Your task to perform on an android device: turn on the 24-hour format for clock Image 0: 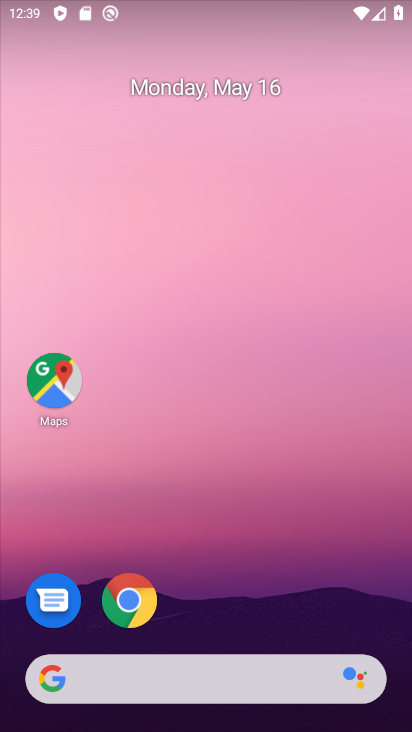
Step 0: drag from (346, 608) to (358, 149)
Your task to perform on an android device: turn on the 24-hour format for clock Image 1: 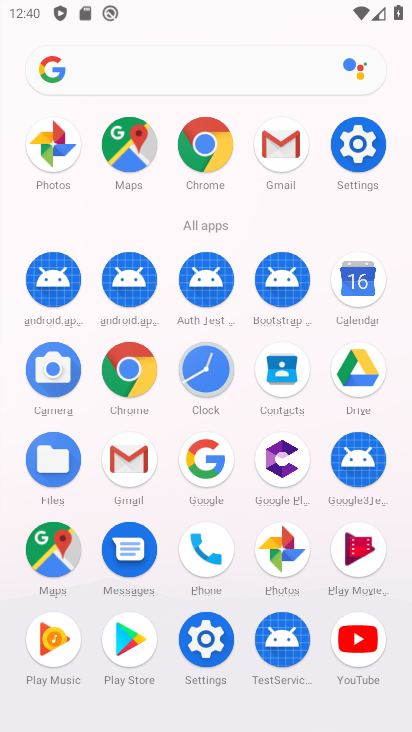
Step 1: click (217, 371)
Your task to perform on an android device: turn on the 24-hour format for clock Image 2: 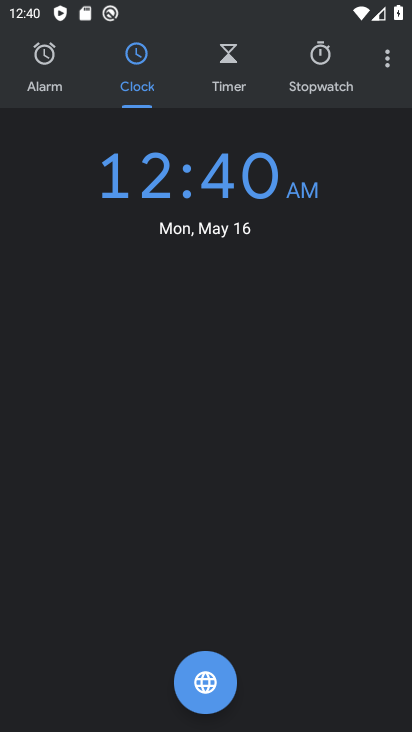
Step 2: click (384, 66)
Your task to perform on an android device: turn on the 24-hour format for clock Image 3: 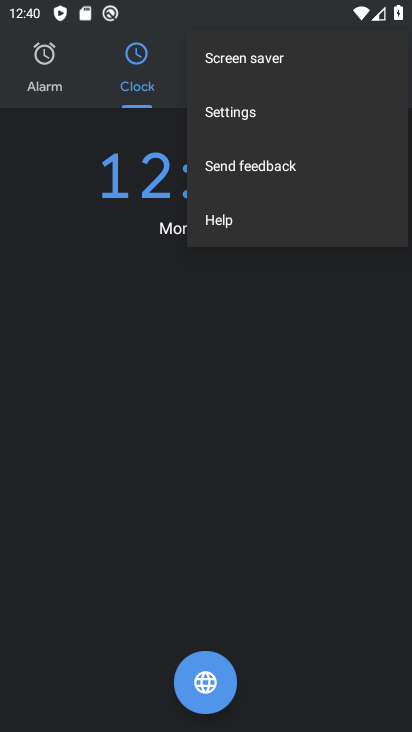
Step 3: click (241, 122)
Your task to perform on an android device: turn on the 24-hour format for clock Image 4: 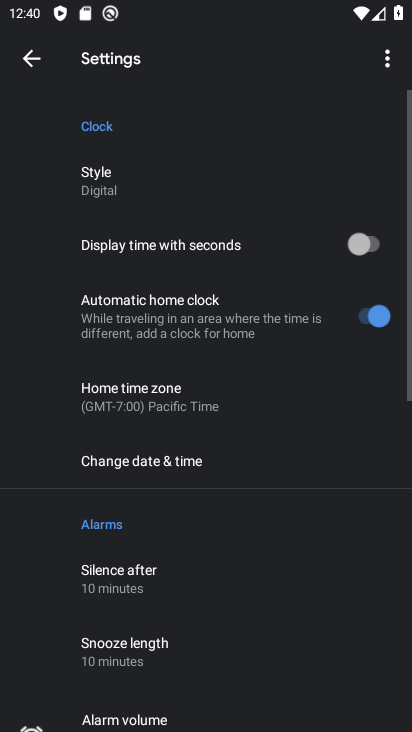
Step 4: drag from (306, 614) to (309, 484)
Your task to perform on an android device: turn on the 24-hour format for clock Image 5: 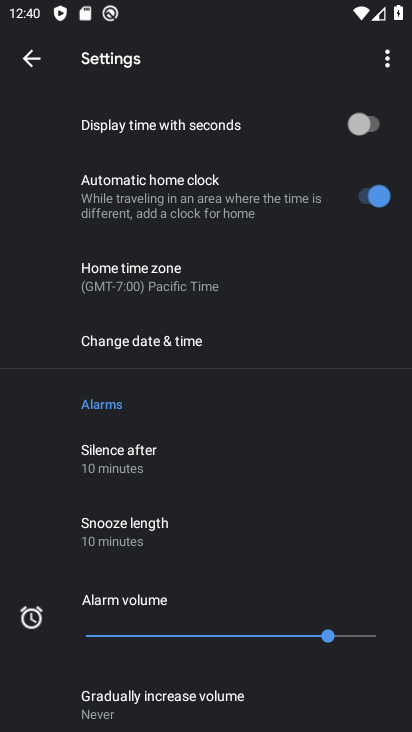
Step 5: drag from (312, 681) to (319, 530)
Your task to perform on an android device: turn on the 24-hour format for clock Image 6: 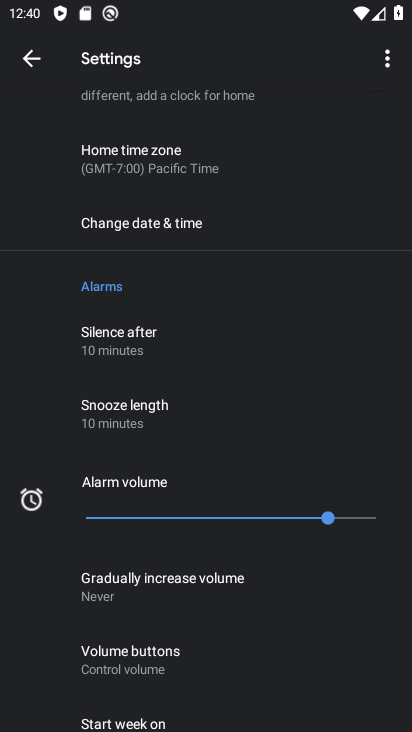
Step 6: drag from (302, 661) to (302, 530)
Your task to perform on an android device: turn on the 24-hour format for clock Image 7: 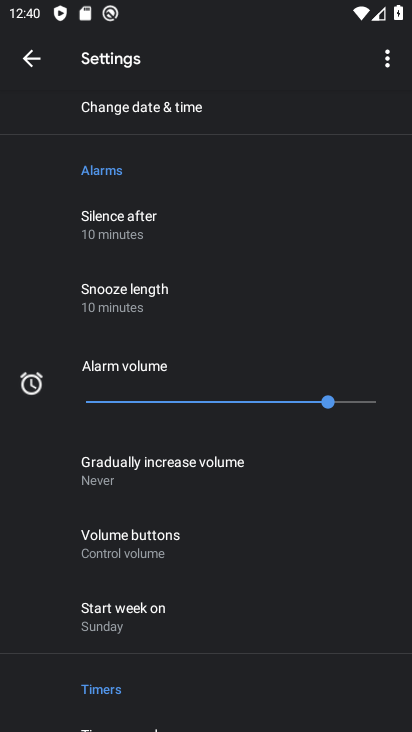
Step 7: drag from (285, 660) to (292, 531)
Your task to perform on an android device: turn on the 24-hour format for clock Image 8: 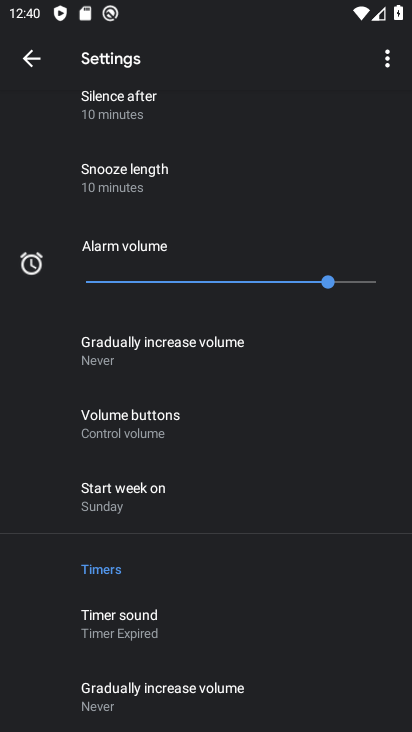
Step 8: drag from (287, 668) to (300, 516)
Your task to perform on an android device: turn on the 24-hour format for clock Image 9: 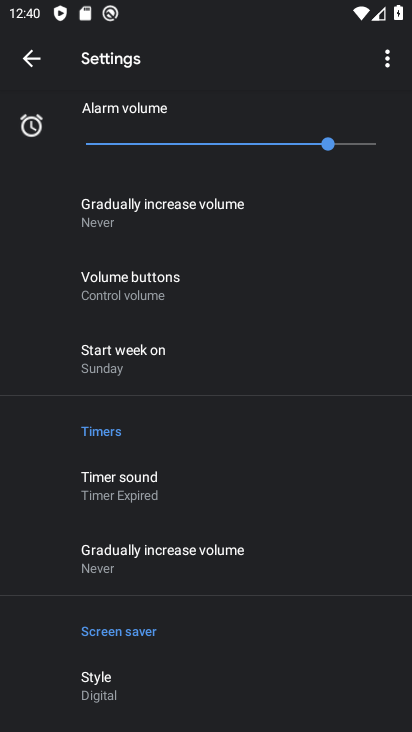
Step 9: drag from (329, 312) to (321, 492)
Your task to perform on an android device: turn on the 24-hour format for clock Image 10: 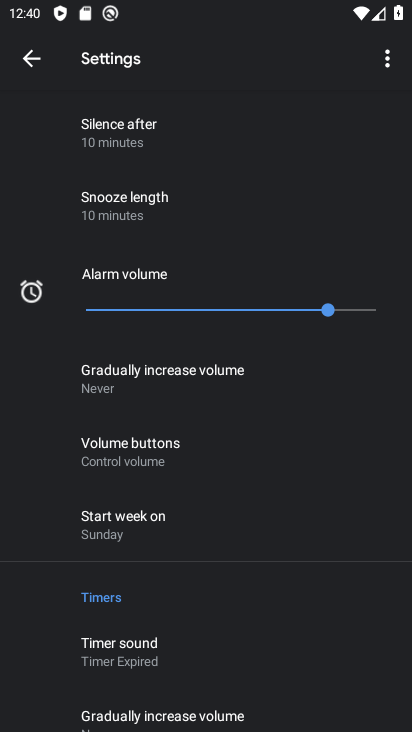
Step 10: drag from (295, 268) to (279, 458)
Your task to perform on an android device: turn on the 24-hour format for clock Image 11: 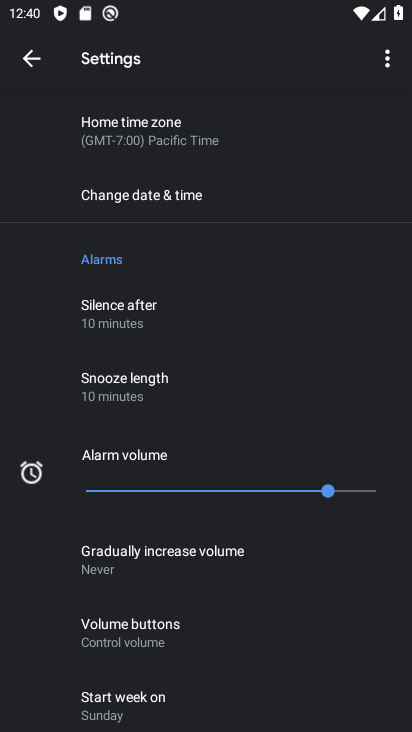
Step 11: drag from (280, 190) to (277, 489)
Your task to perform on an android device: turn on the 24-hour format for clock Image 12: 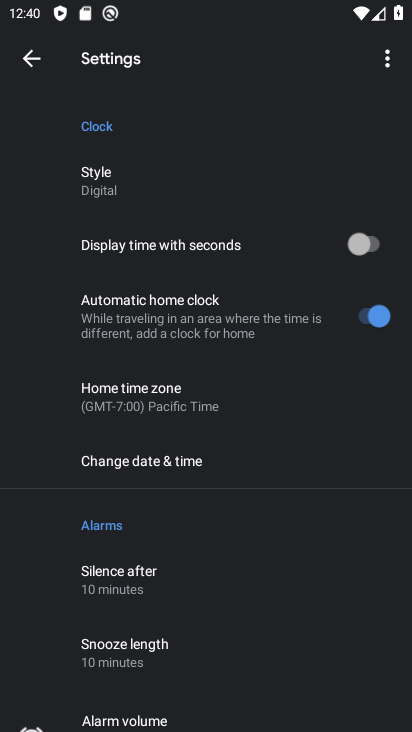
Step 12: click (167, 474)
Your task to perform on an android device: turn on the 24-hour format for clock Image 13: 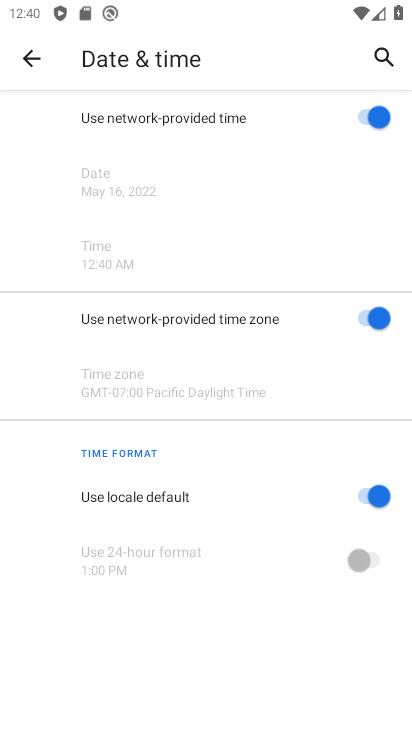
Step 13: click (385, 493)
Your task to perform on an android device: turn on the 24-hour format for clock Image 14: 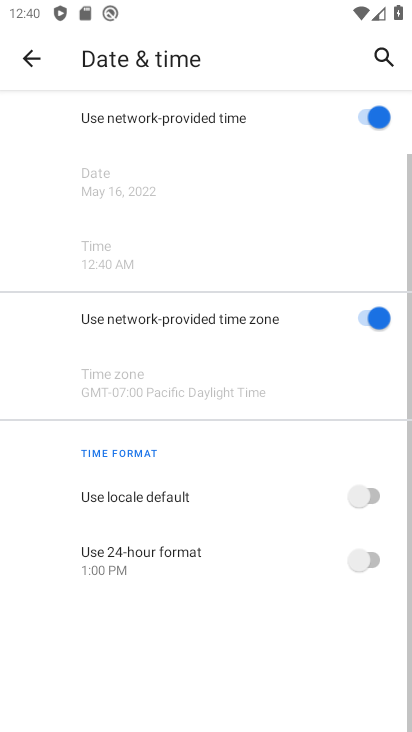
Step 14: click (363, 556)
Your task to perform on an android device: turn on the 24-hour format for clock Image 15: 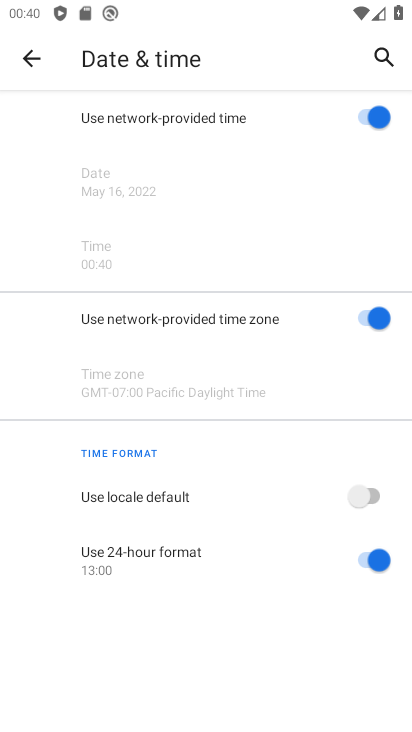
Step 15: task complete